Your task to perform on an android device: Open Chrome and go to settings Image 0: 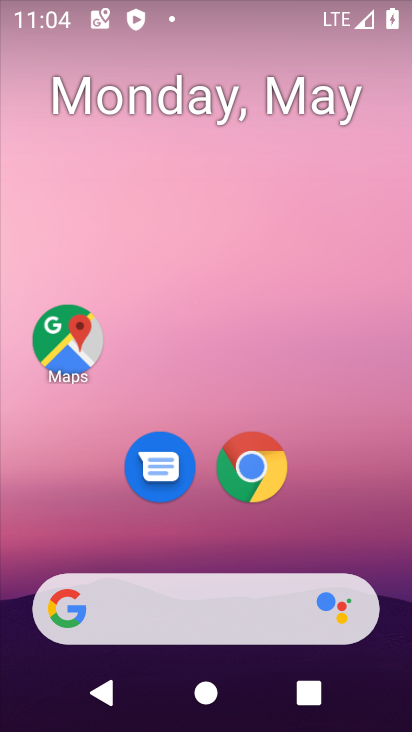
Step 0: click (240, 455)
Your task to perform on an android device: Open Chrome and go to settings Image 1: 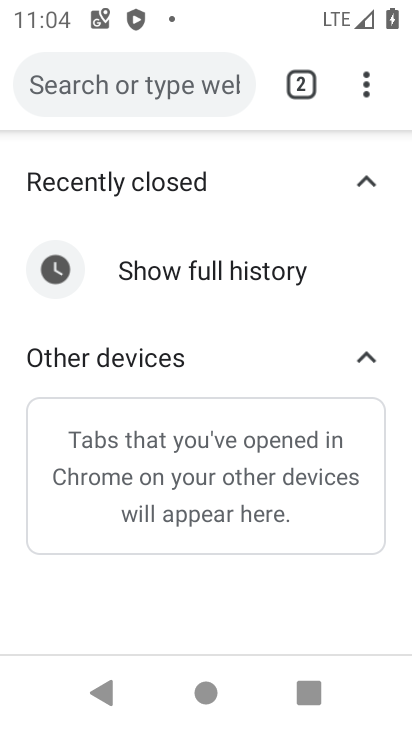
Step 1: click (362, 76)
Your task to perform on an android device: Open Chrome and go to settings Image 2: 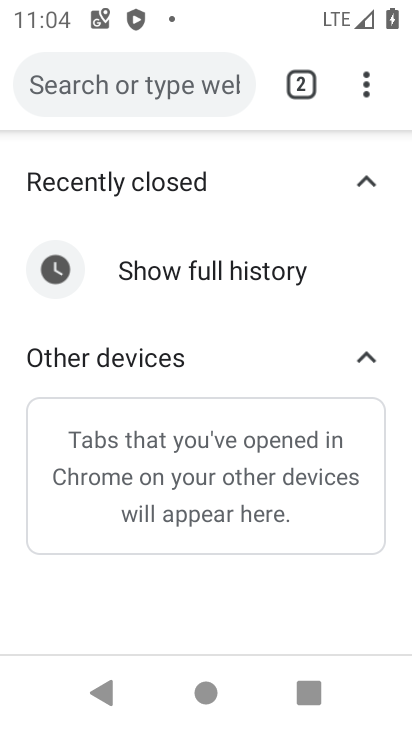
Step 2: click (364, 78)
Your task to perform on an android device: Open Chrome and go to settings Image 3: 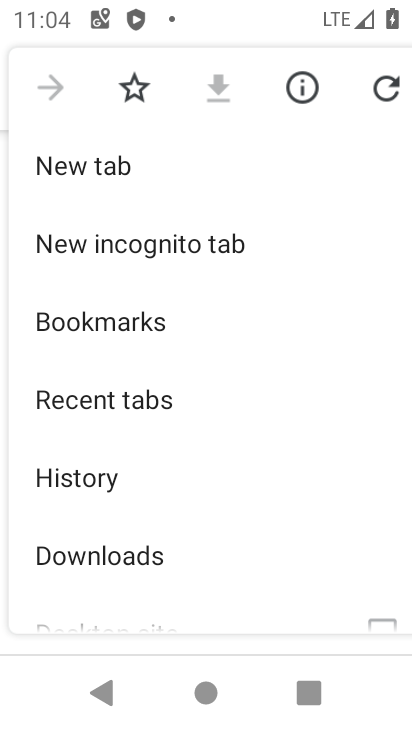
Step 3: drag from (195, 563) to (207, 248)
Your task to perform on an android device: Open Chrome and go to settings Image 4: 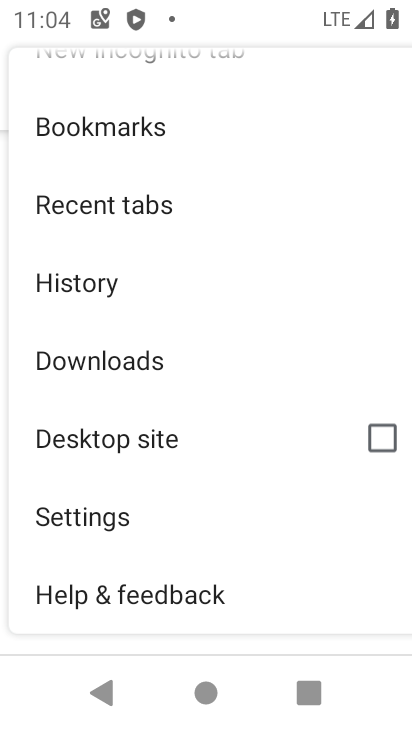
Step 4: click (93, 522)
Your task to perform on an android device: Open Chrome and go to settings Image 5: 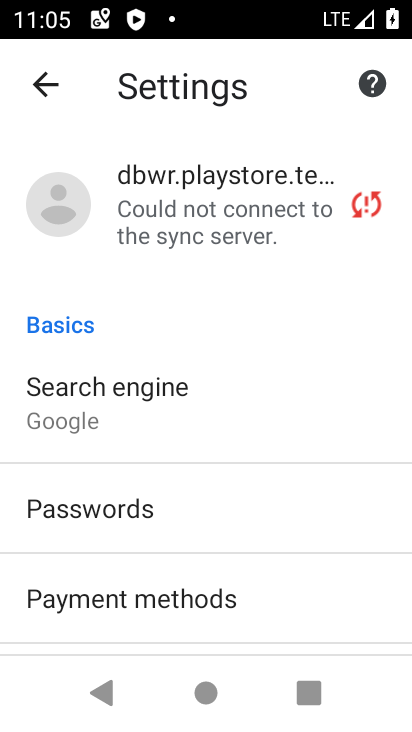
Step 5: task complete